Your task to perform on an android device: Search for a coffee table on Crate & Barrel Image 0: 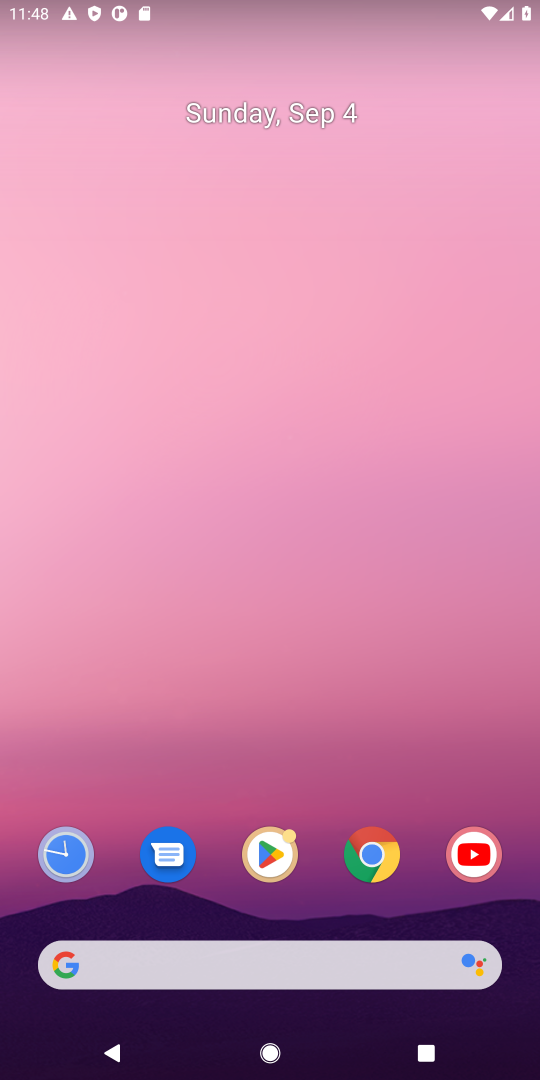
Step 0: press home button
Your task to perform on an android device: Search for a coffee table on Crate & Barrel Image 1: 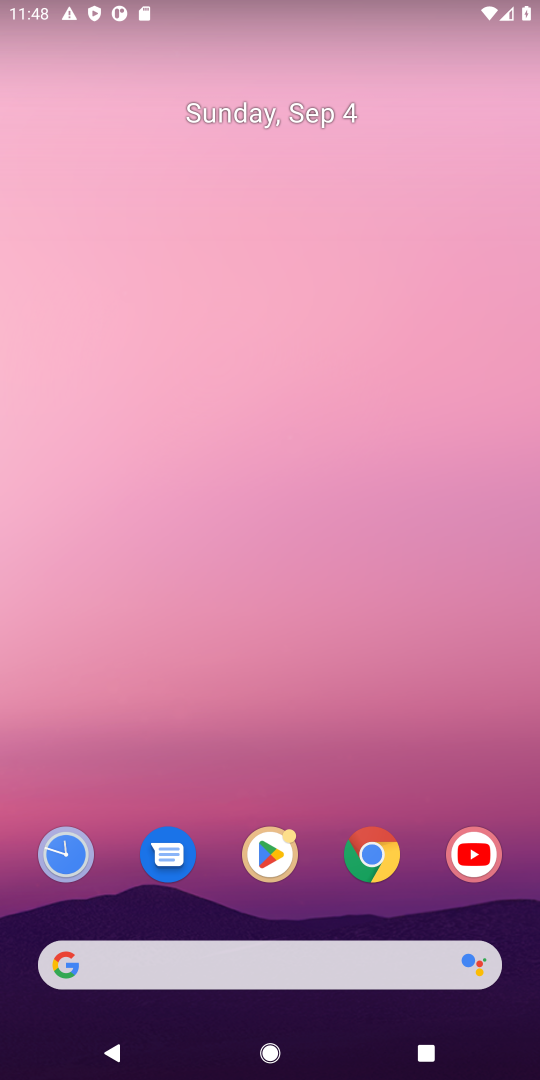
Step 1: click (357, 968)
Your task to perform on an android device: Search for a coffee table on Crate & Barrel Image 2: 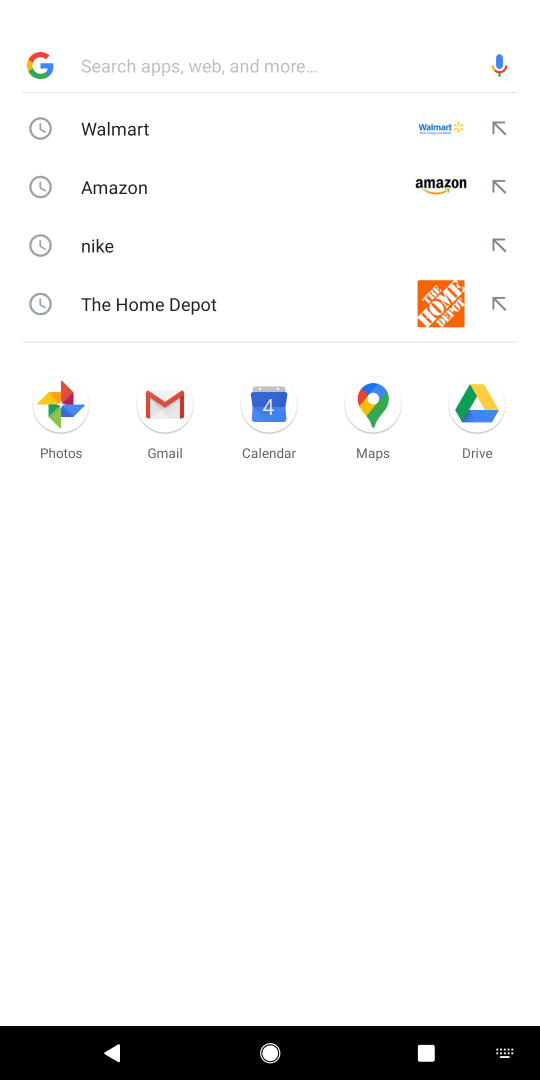
Step 2: type "crate barrel"
Your task to perform on an android device: Search for a coffee table on Crate & Barrel Image 3: 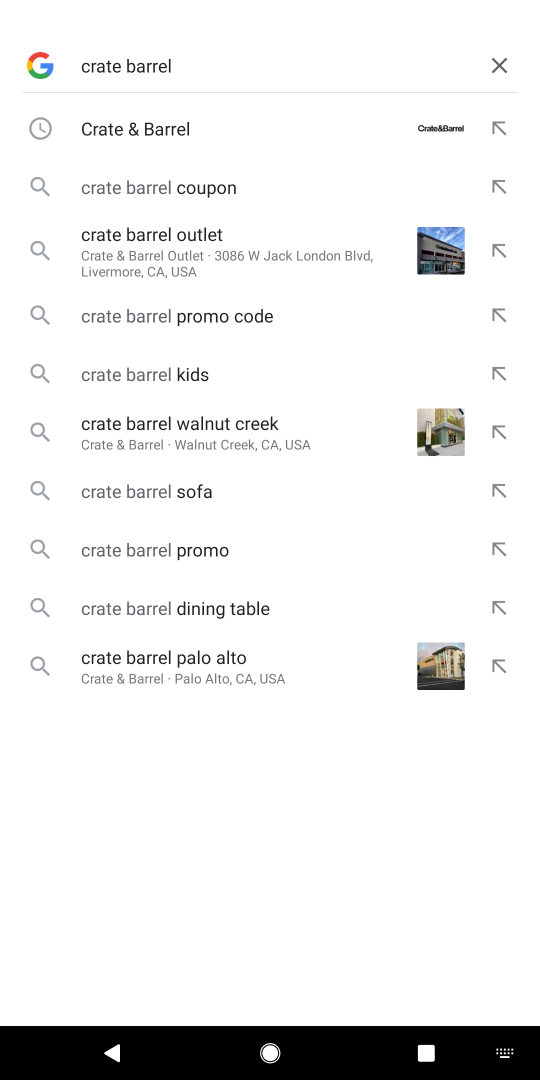
Step 3: press enter
Your task to perform on an android device: Search for a coffee table on Crate & Barrel Image 4: 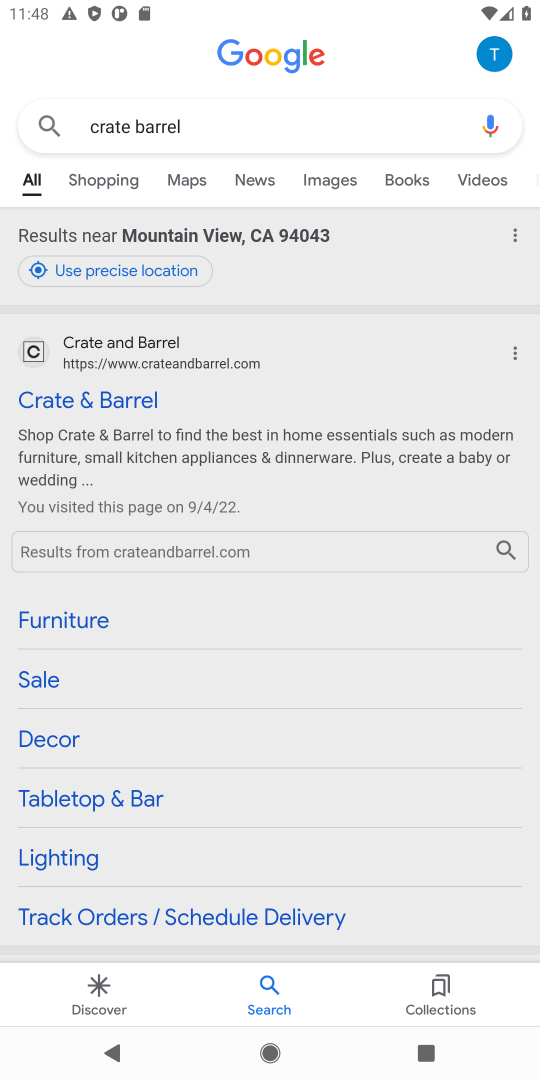
Step 4: click (103, 399)
Your task to perform on an android device: Search for a coffee table on Crate & Barrel Image 5: 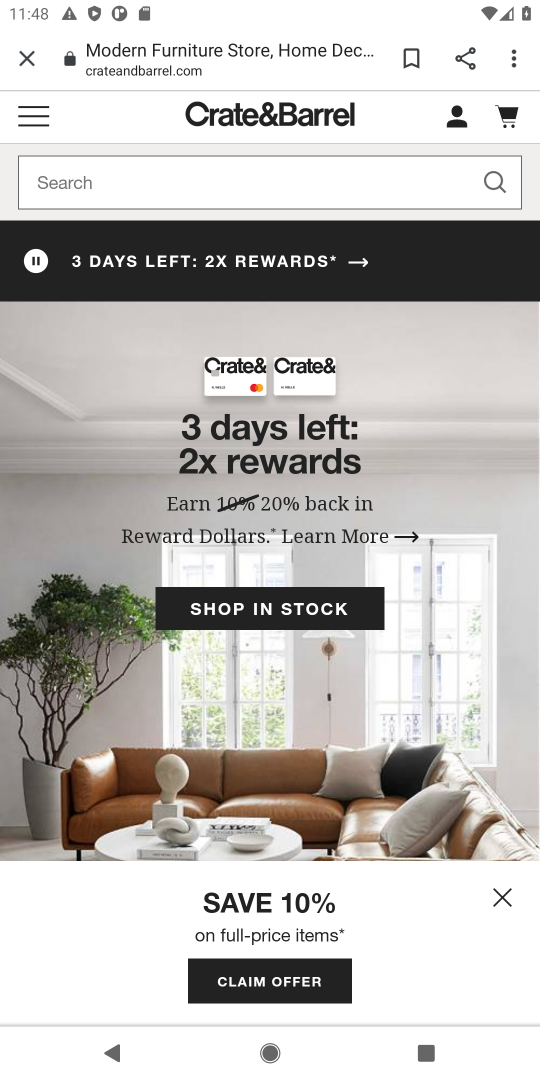
Step 5: click (183, 186)
Your task to perform on an android device: Search for a coffee table on Crate & Barrel Image 6: 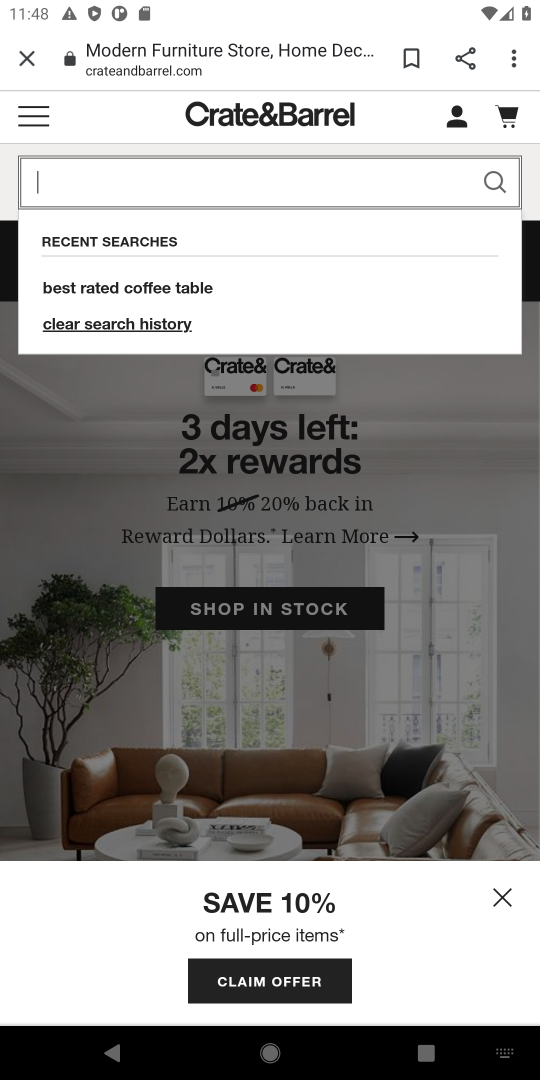
Step 6: type "coffee table"
Your task to perform on an android device: Search for a coffee table on Crate & Barrel Image 7: 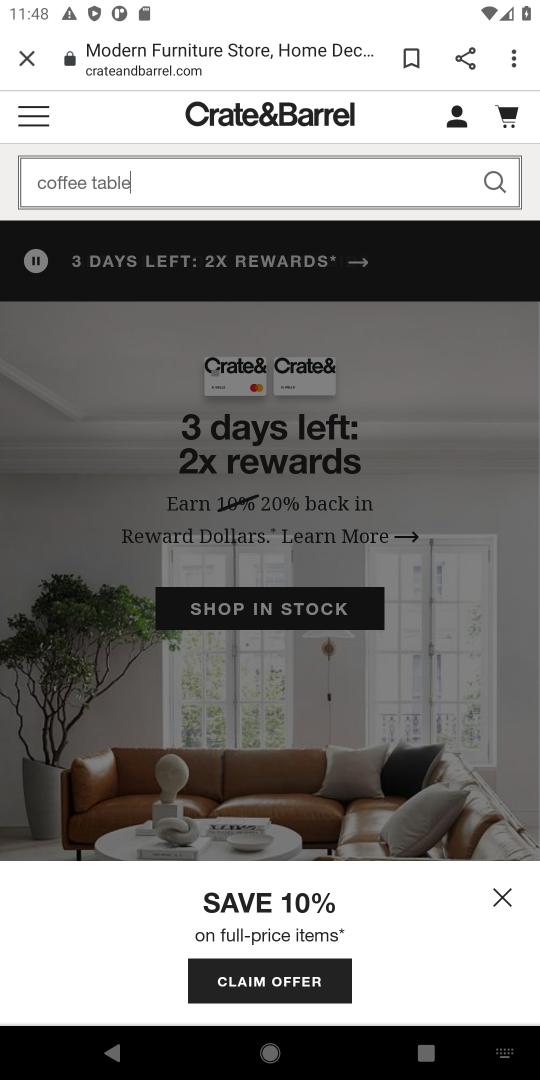
Step 7: press enter
Your task to perform on an android device: Search for a coffee table on Crate & Barrel Image 8: 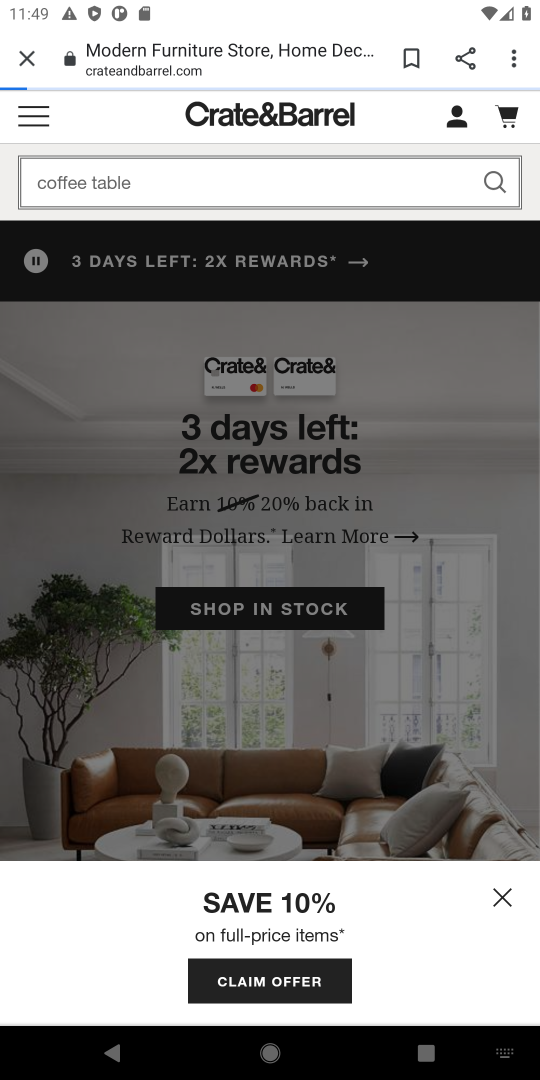
Step 8: click (497, 180)
Your task to perform on an android device: Search for a coffee table on Crate & Barrel Image 9: 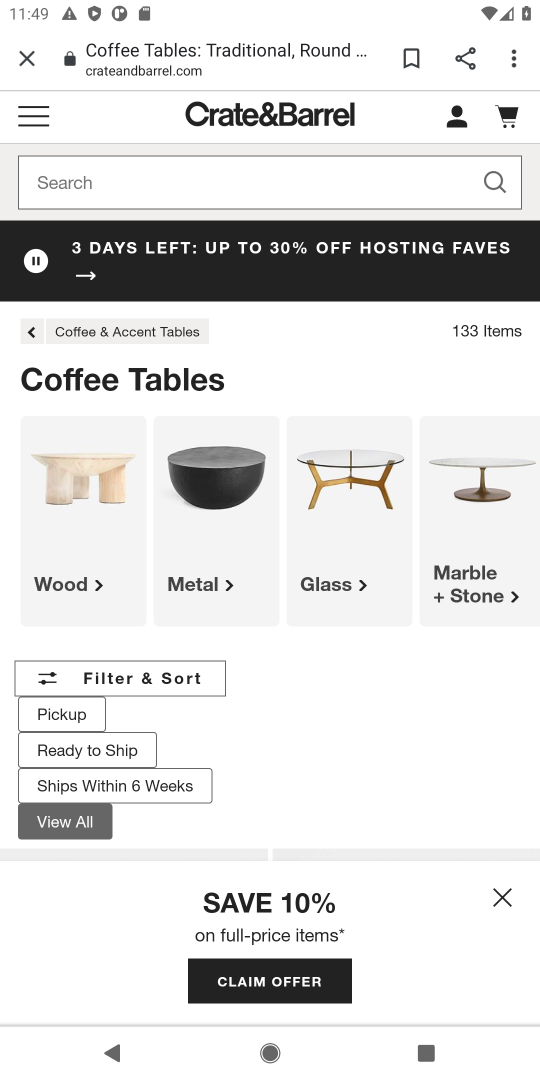
Step 9: task complete